Your task to perform on an android device: Open Yahoo.com Image 0: 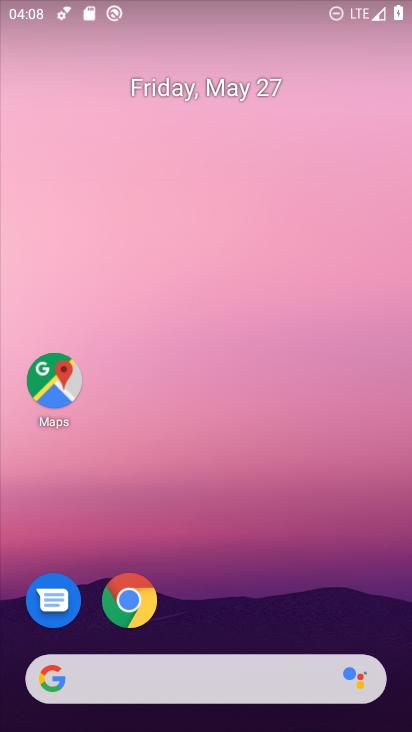
Step 0: click (127, 600)
Your task to perform on an android device: Open Yahoo.com Image 1: 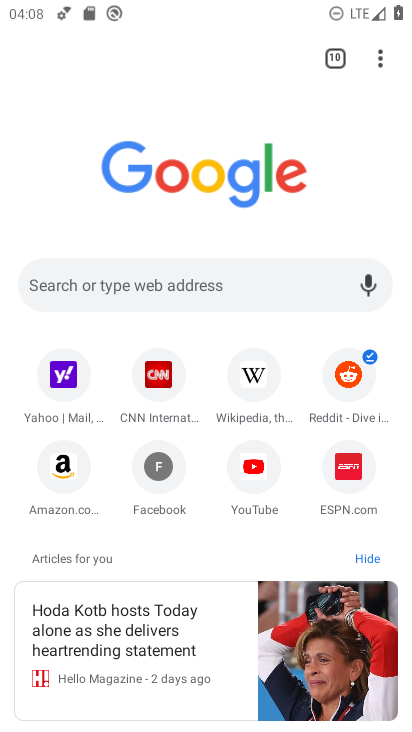
Step 1: click (64, 381)
Your task to perform on an android device: Open Yahoo.com Image 2: 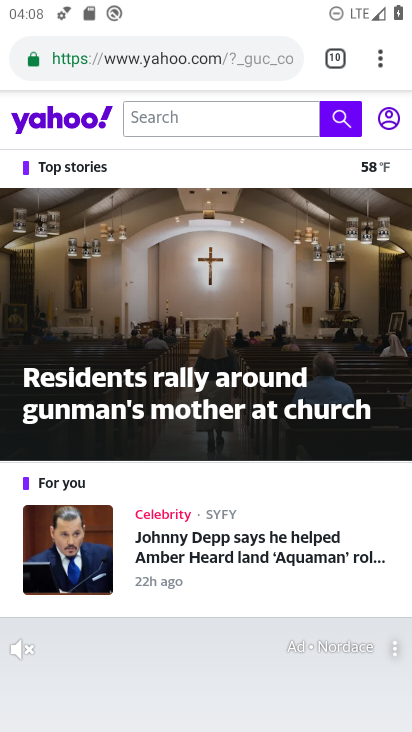
Step 2: task complete